Your task to perform on an android device: toggle airplane mode Image 0: 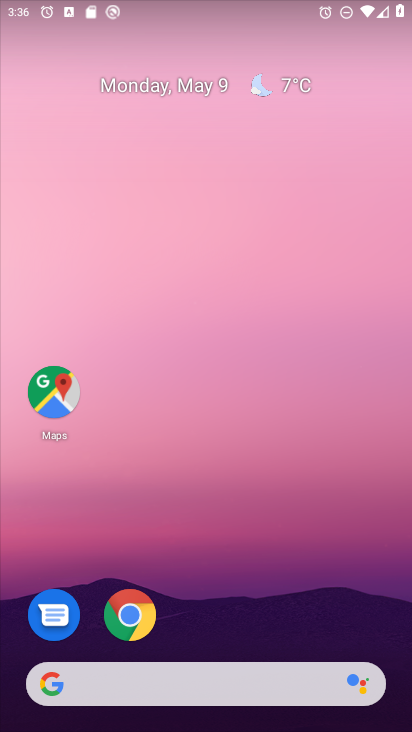
Step 0: drag from (375, 637) to (337, 98)
Your task to perform on an android device: toggle airplane mode Image 1: 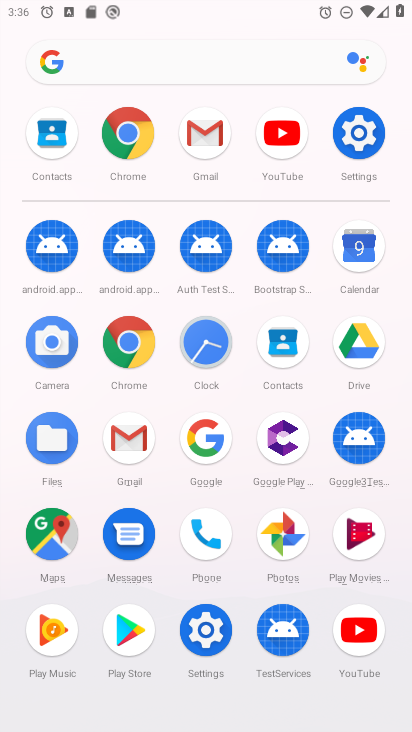
Step 1: click (205, 628)
Your task to perform on an android device: toggle airplane mode Image 2: 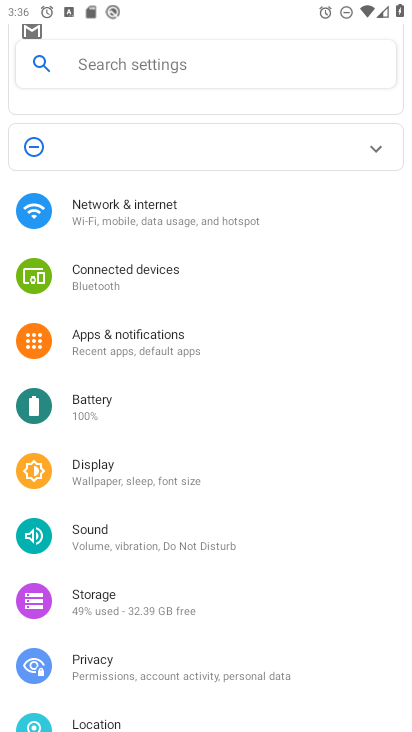
Step 2: click (111, 207)
Your task to perform on an android device: toggle airplane mode Image 3: 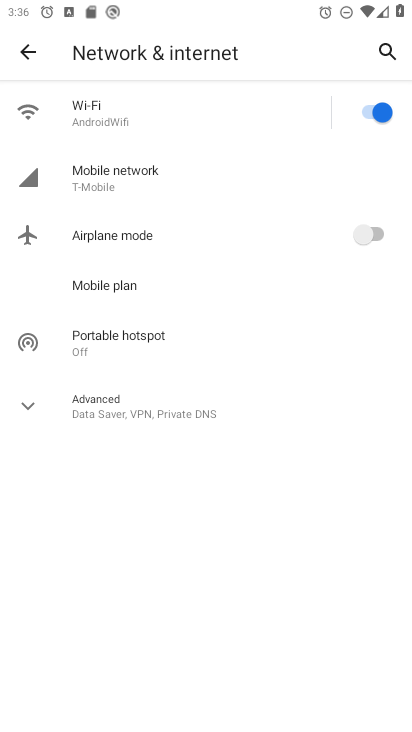
Step 3: click (378, 233)
Your task to perform on an android device: toggle airplane mode Image 4: 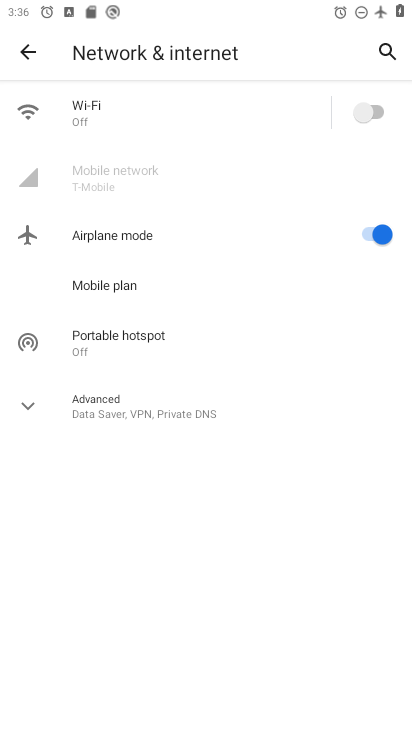
Step 4: task complete